Your task to perform on an android device: toggle javascript in the chrome app Image 0: 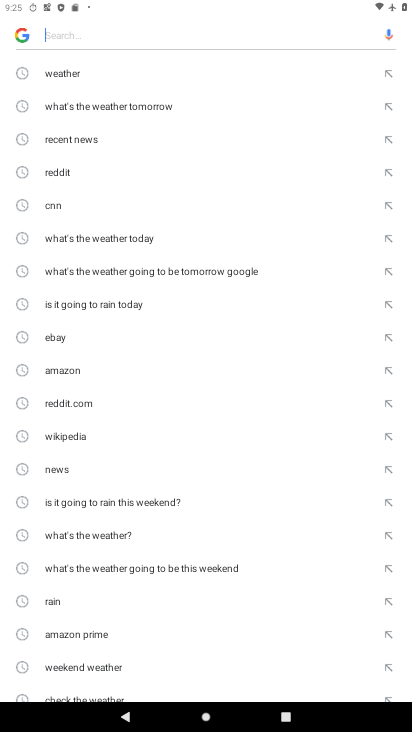
Step 0: press home button
Your task to perform on an android device: toggle javascript in the chrome app Image 1: 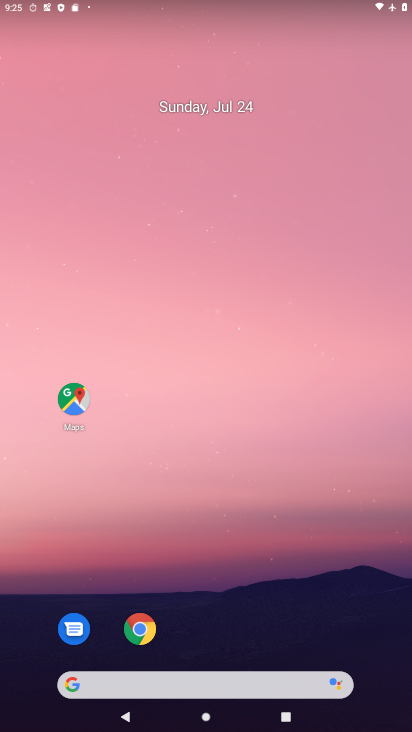
Step 1: drag from (187, 640) to (169, 0)
Your task to perform on an android device: toggle javascript in the chrome app Image 2: 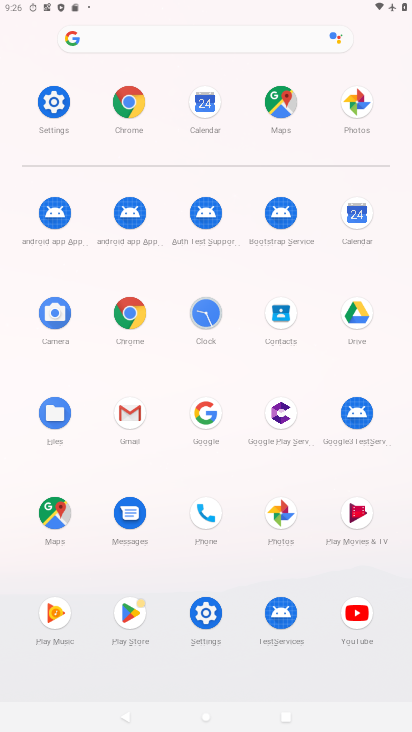
Step 2: click (134, 123)
Your task to perform on an android device: toggle javascript in the chrome app Image 3: 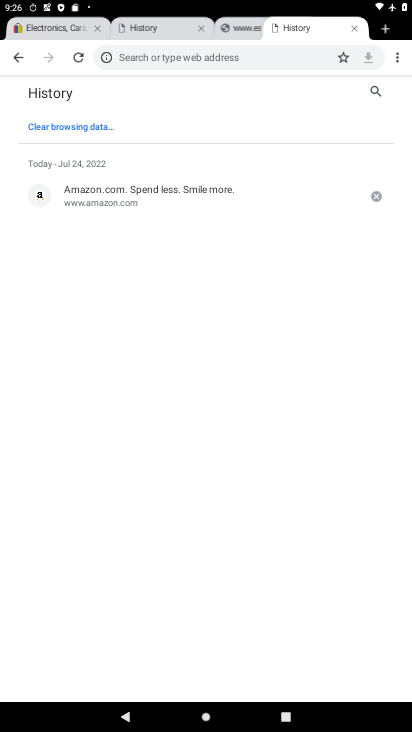
Step 3: click (13, 57)
Your task to perform on an android device: toggle javascript in the chrome app Image 4: 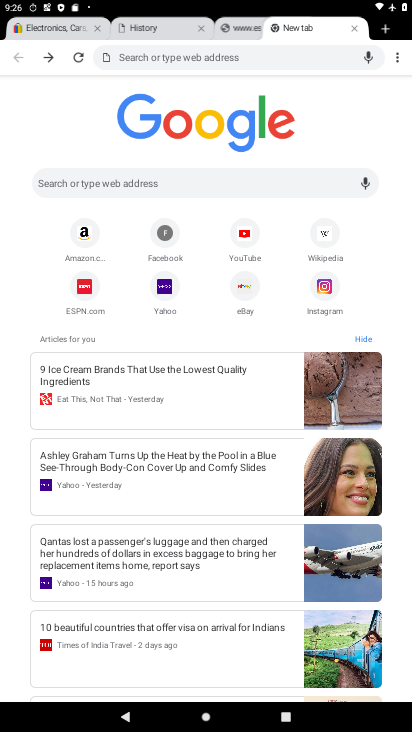
Step 4: click (397, 60)
Your task to perform on an android device: toggle javascript in the chrome app Image 5: 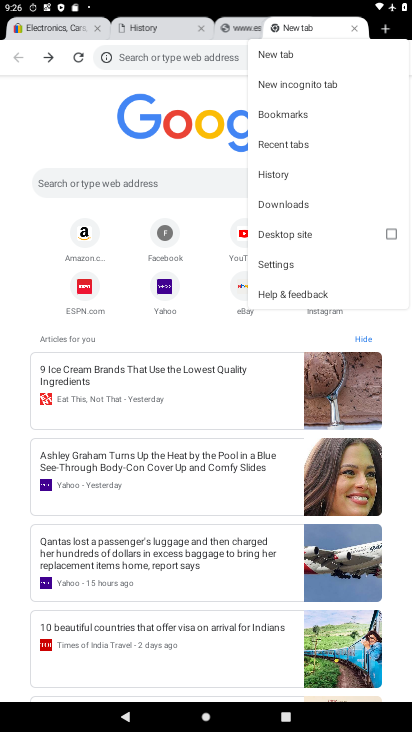
Step 5: click (289, 272)
Your task to perform on an android device: toggle javascript in the chrome app Image 6: 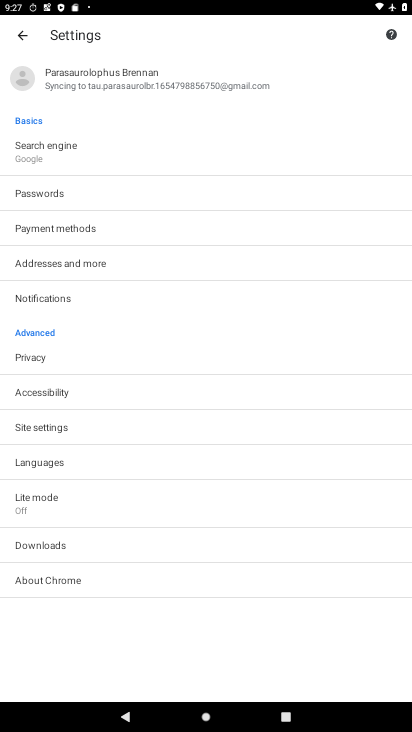
Step 6: click (42, 427)
Your task to perform on an android device: toggle javascript in the chrome app Image 7: 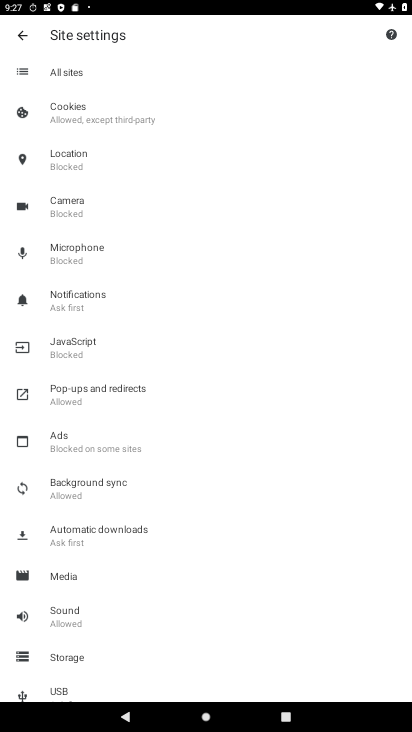
Step 7: click (88, 357)
Your task to perform on an android device: toggle javascript in the chrome app Image 8: 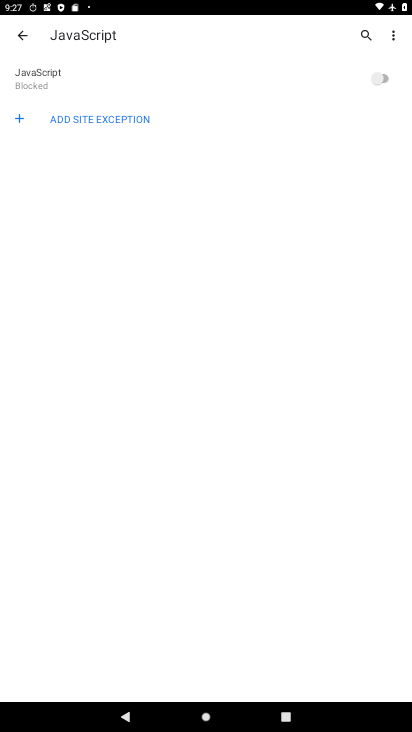
Step 8: click (387, 75)
Your task to perform on an android device: toggle javascript in the chrome app Image 9: 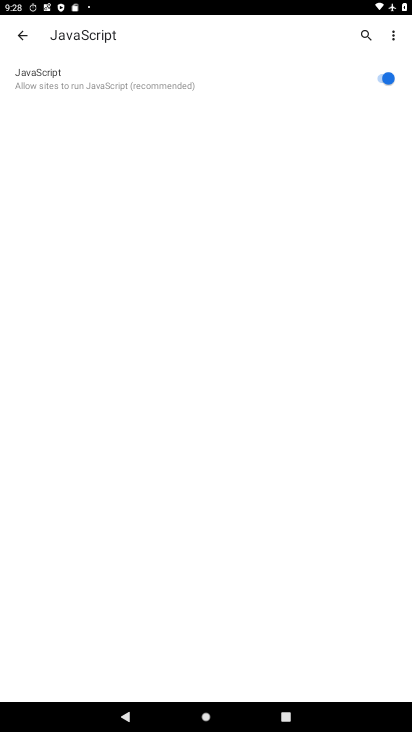
Step 9: task complete